Your task to perform on an android device: Search for the best vacuum on Walmart Image 0: 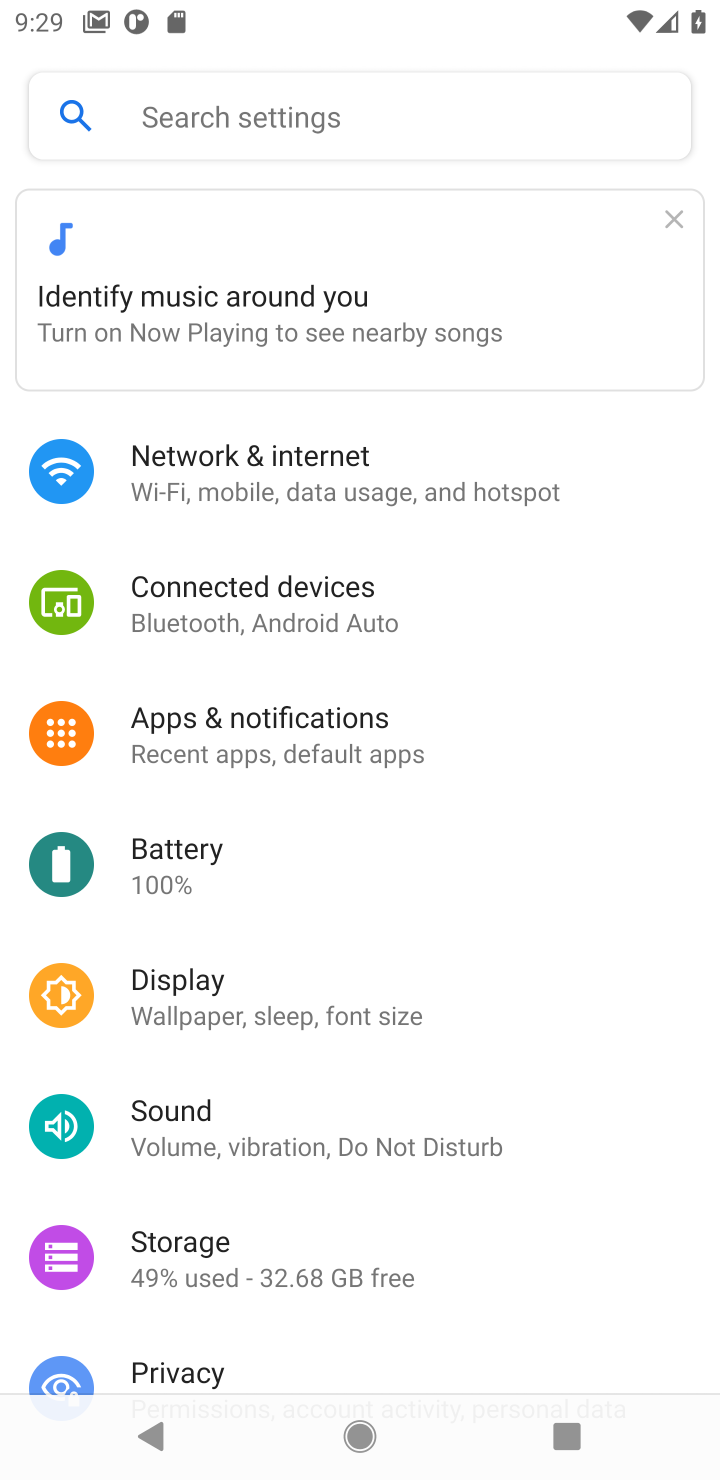
Step 0: press home button
Your task to perform on an android device: Search for the best vacuum on Walmart Image 1: 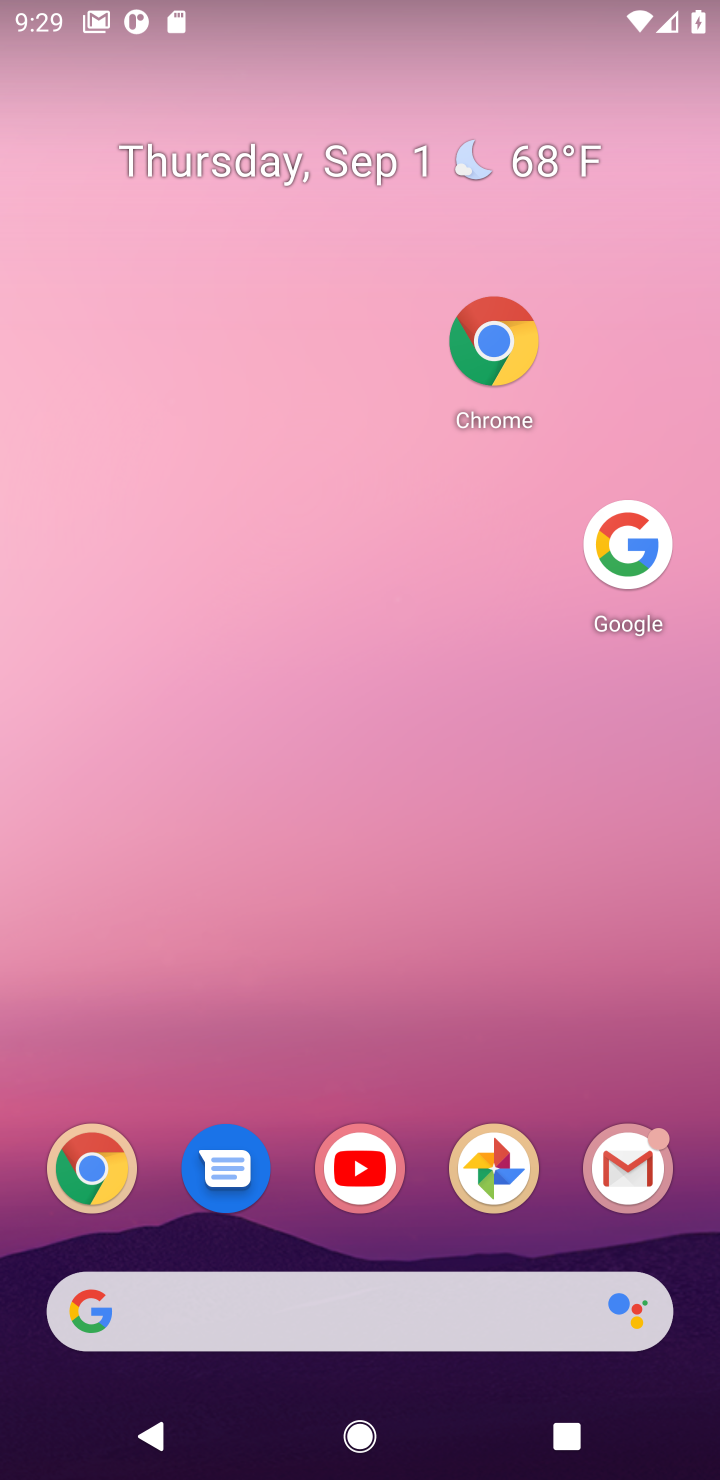
Step 1: click (624, 531)
Your task to perform on an android device: Search for the best vacuum on Walmart Image 2: 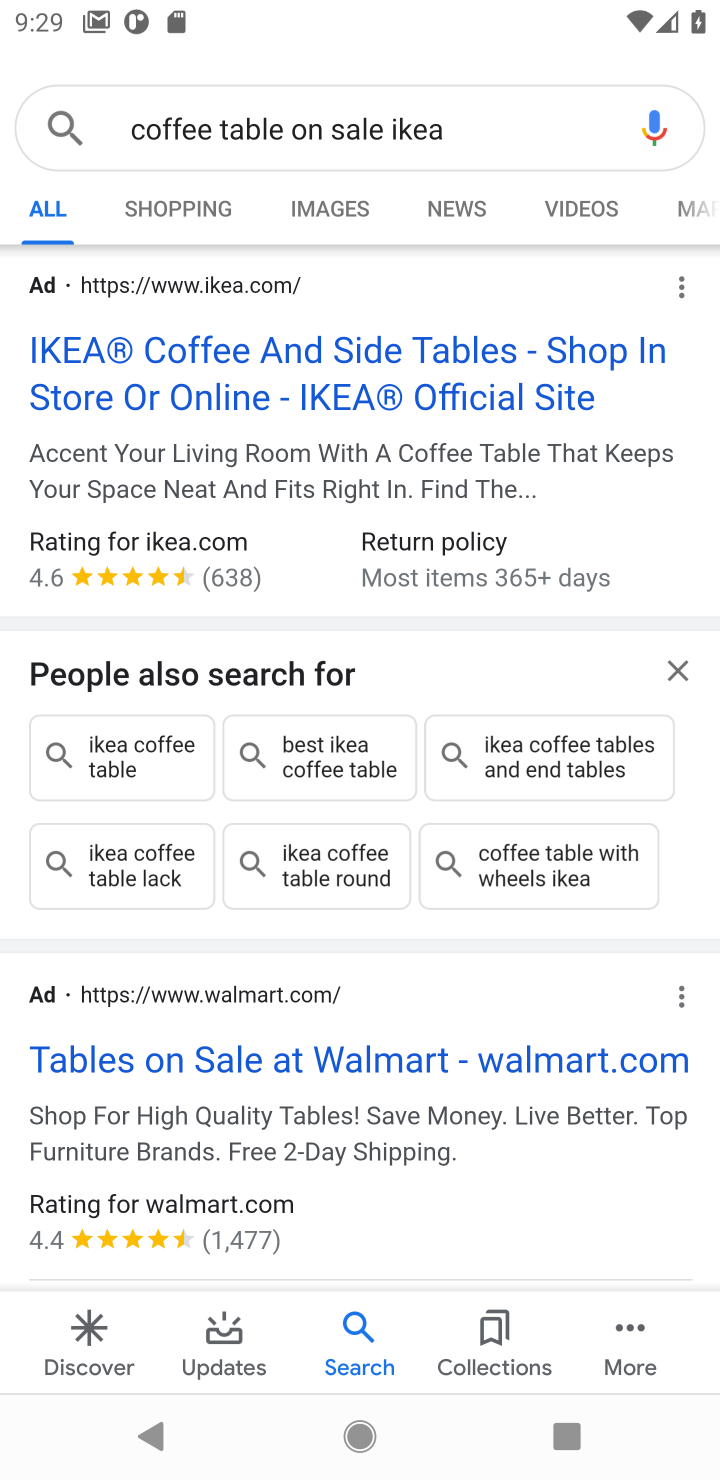
Step 2: click (497, 122)
Your task to perform on an android device: Search for the best vacuum on Walmart Image 3: 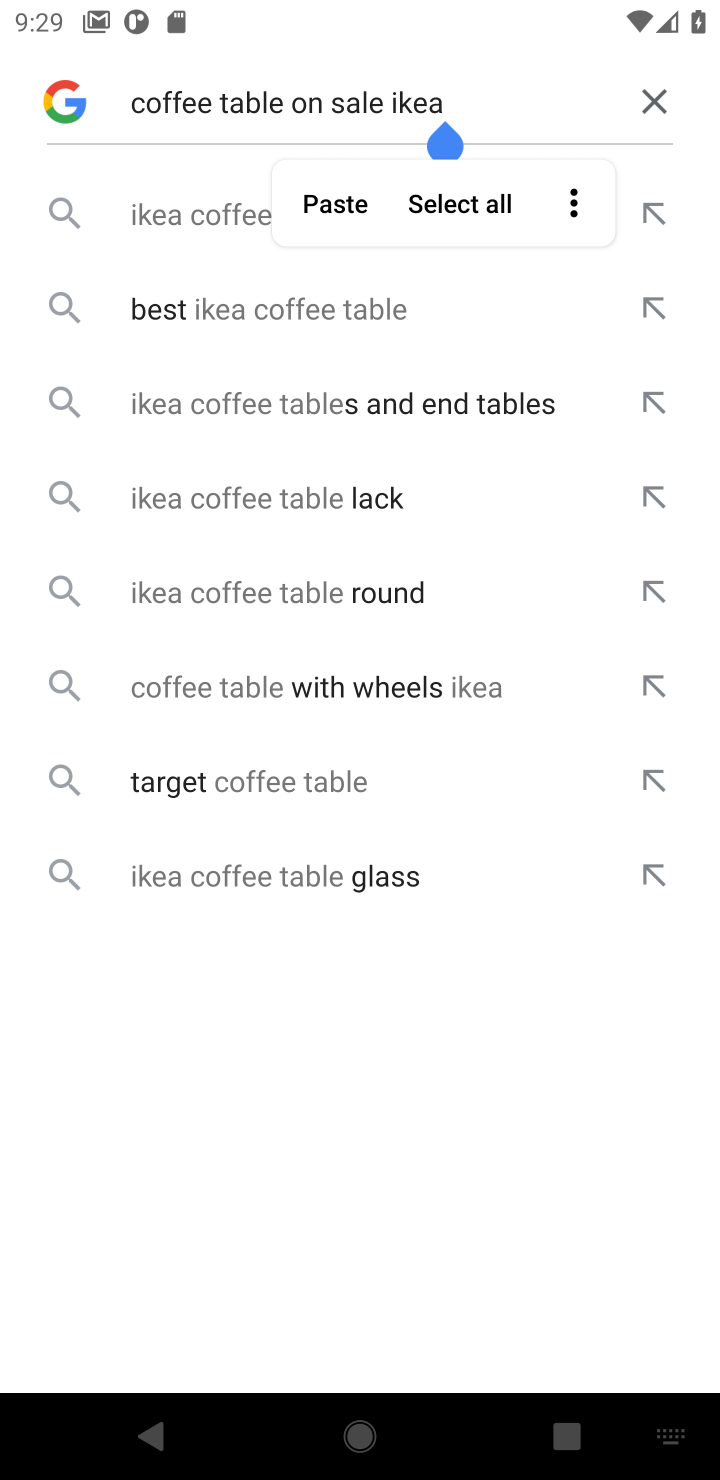
Step 3: click (640, 102)
Your task to perform on an android device: Search for the best vacuum on Walmart Image 4: 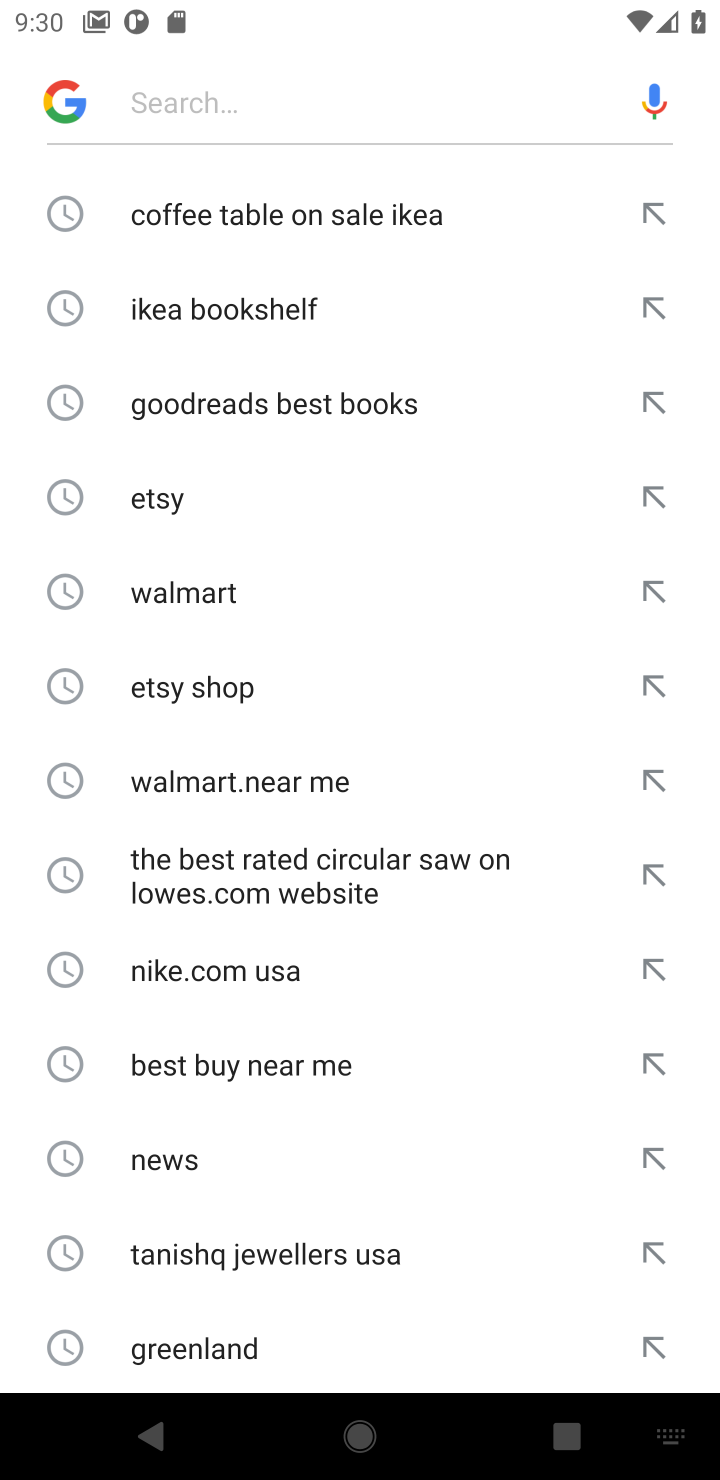
Step 4: click (390, 97)
Your task to perform on an android device: Search for the best vacuum on Walmart Image 5: 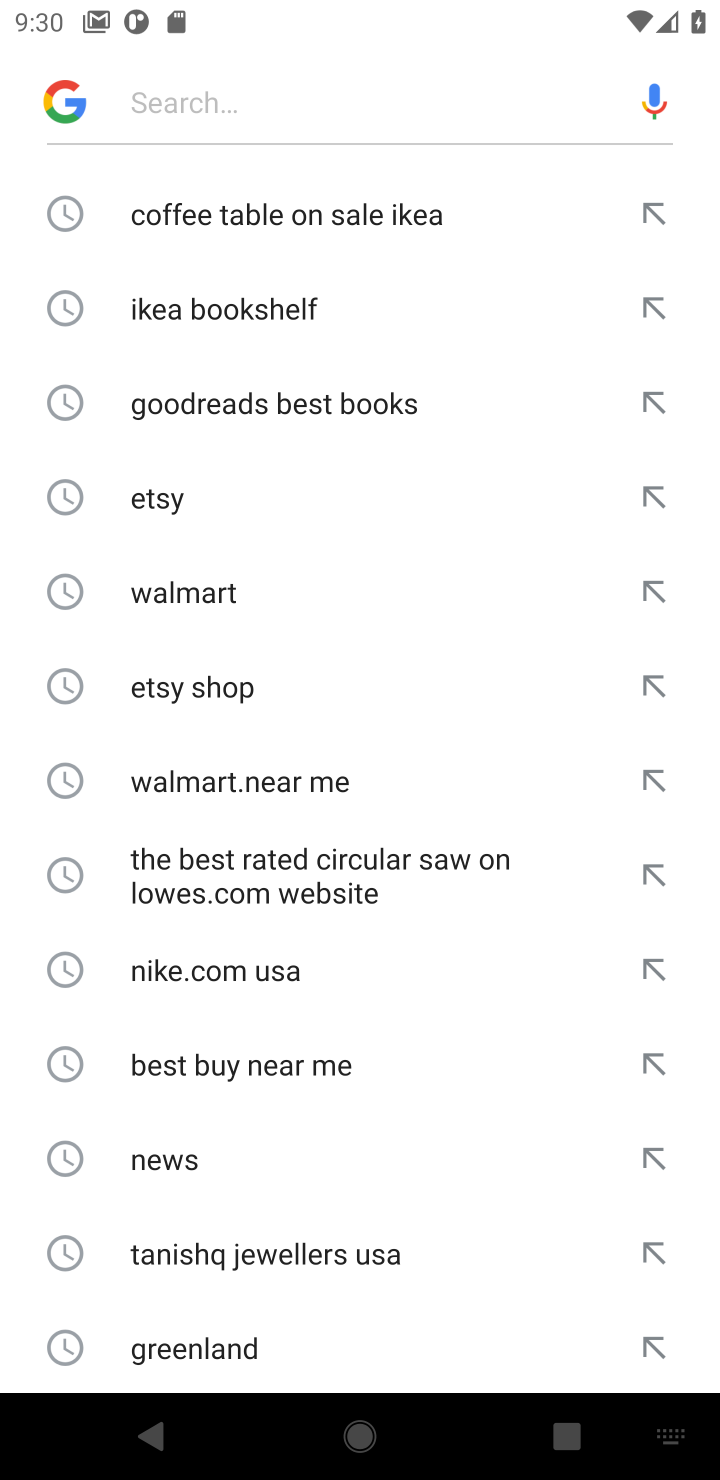
Step 5: type "Walmart "
Your task to perform on an android device: Search for the best vacuum on Walmart Image 6: 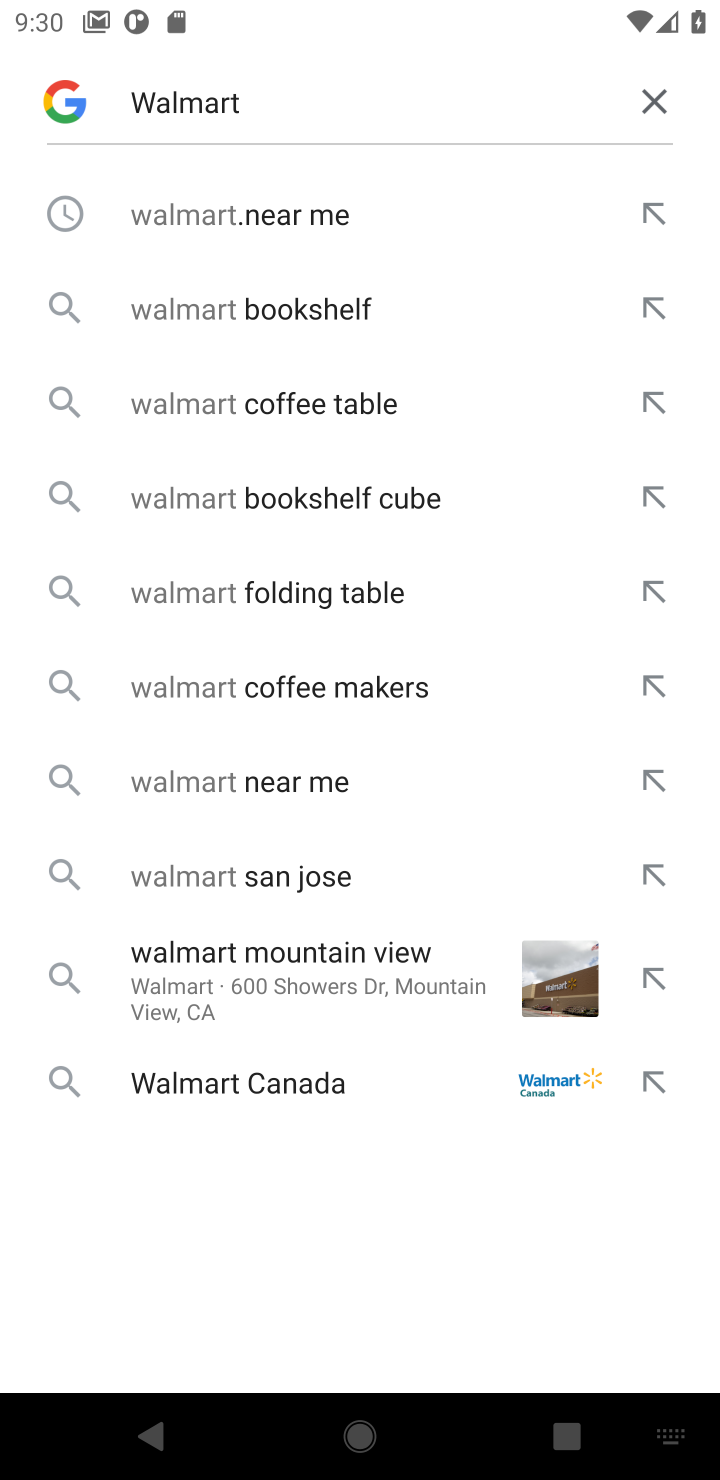
Step 6: click (224, 214)
Your task to perform on an android device: Search for the best vacuum on Walmart Image 7: 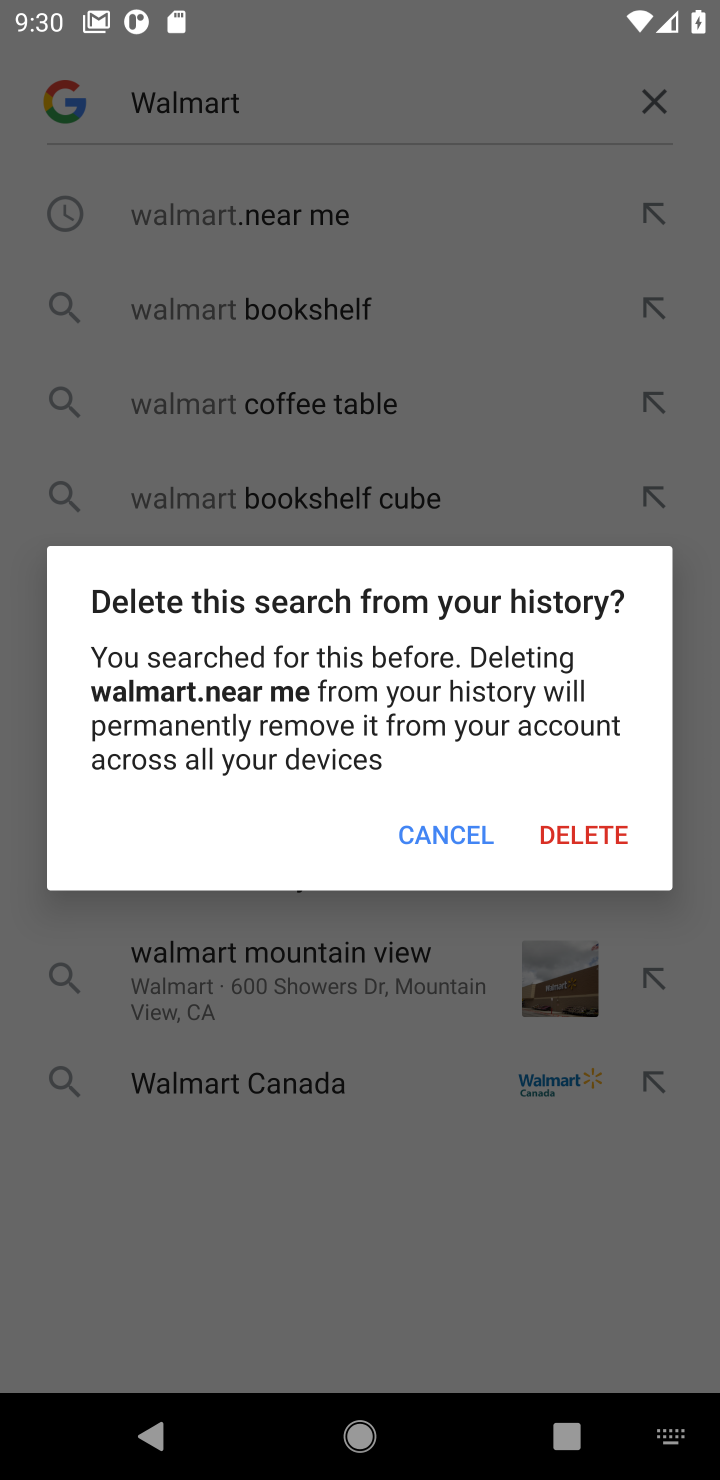
Step 7: click (448, 813)
Your task to perform on an android device: Search for the best vacuum on Walmart Image 8: 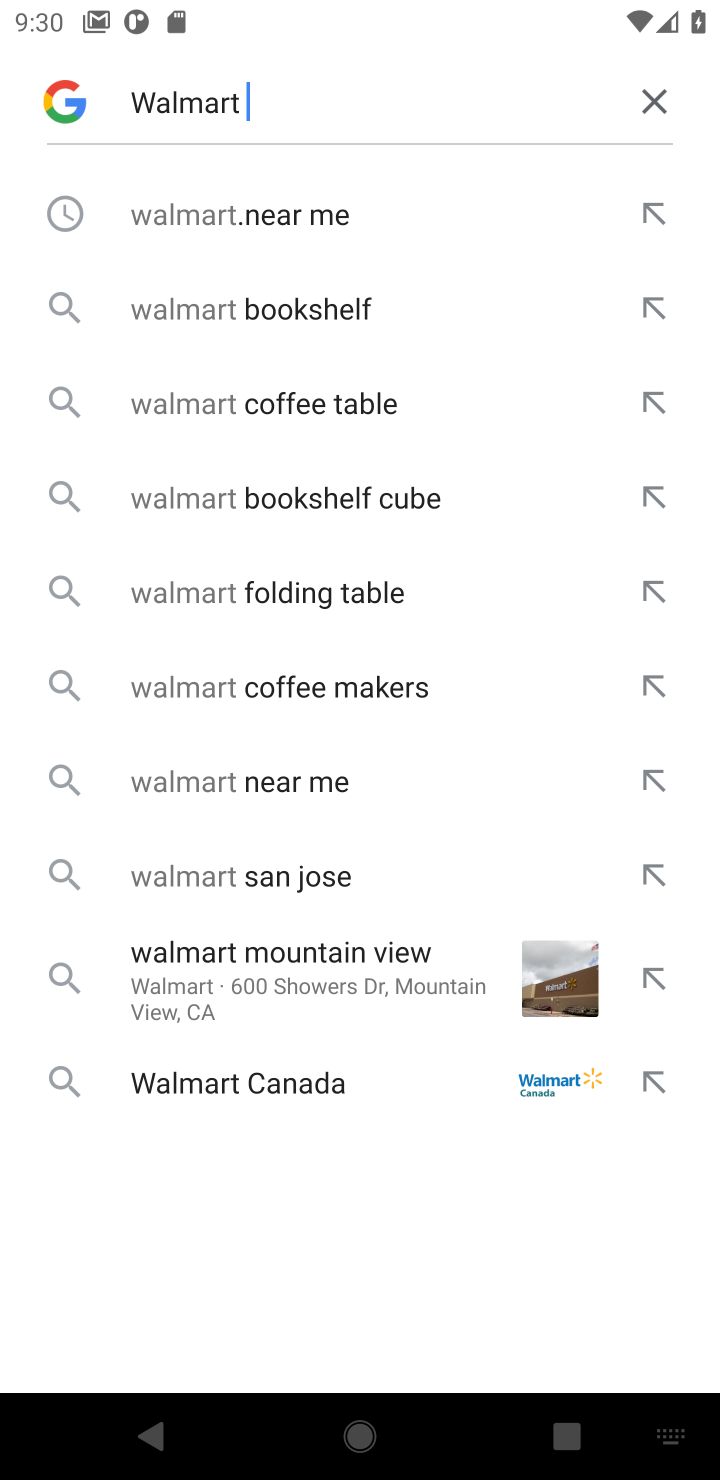
Step 8: click (299, 782)
Your task to perform on an android device: Search for the best vacuum on Walmart Image 9: 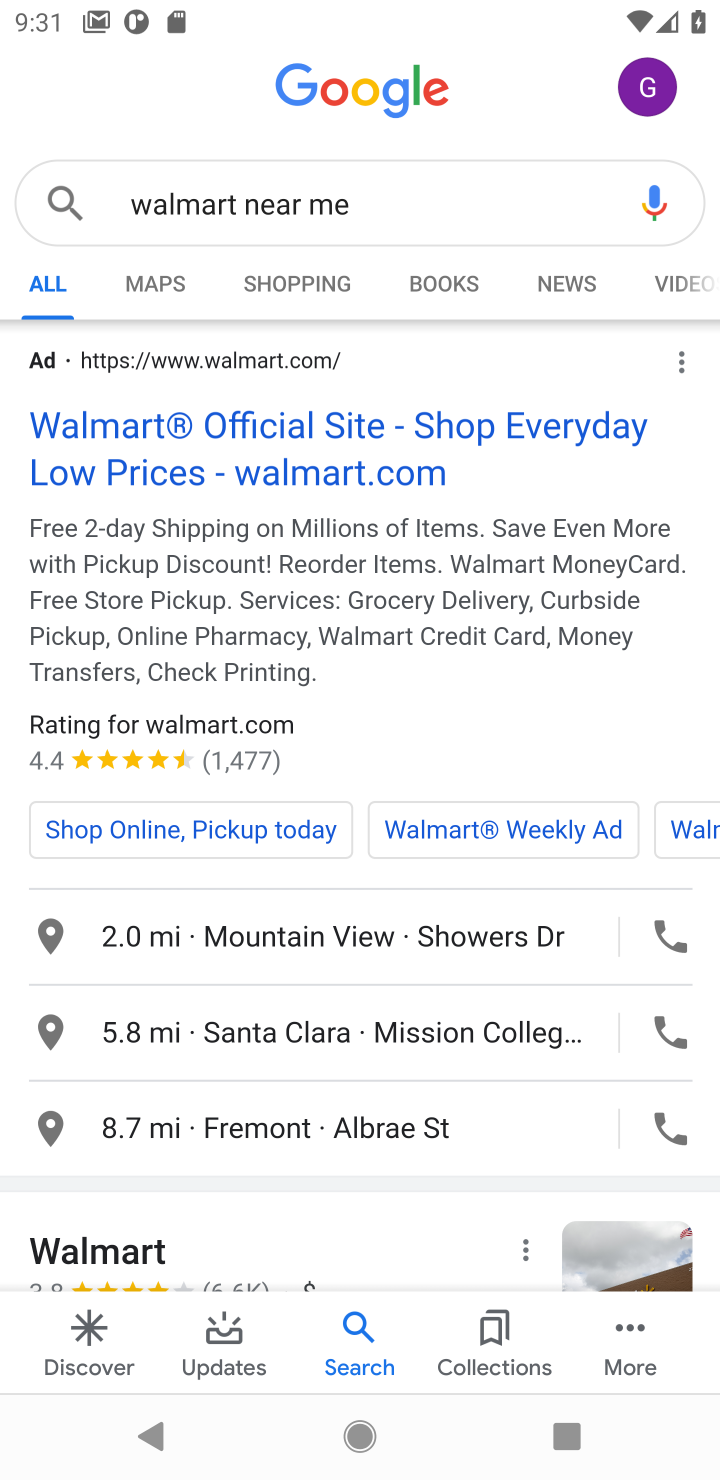
Step 9: click (328, 465)
Your task to perform on an android device: Search for the best vacuum on Walmart Image 10: 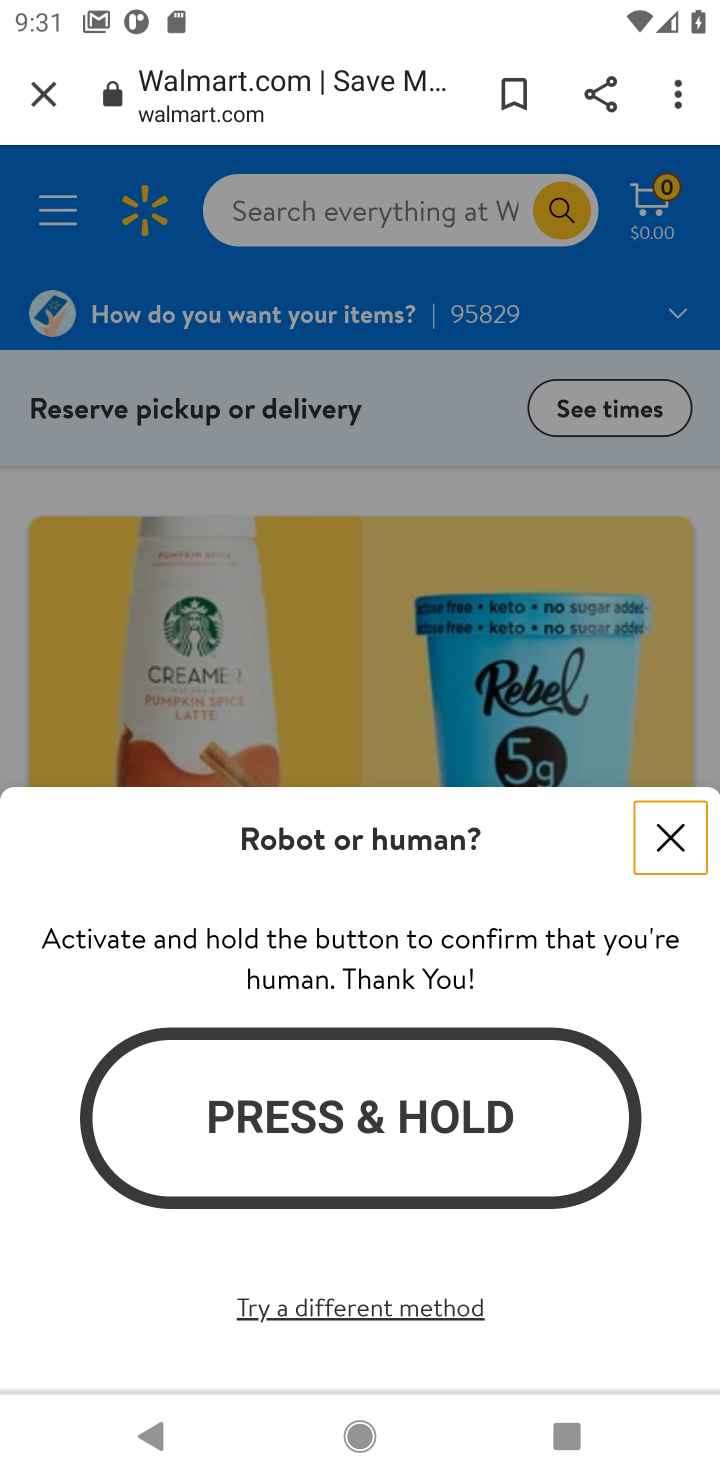
Step 10: click (671, 850)
Your task to perform on an android device: Search for the best vacuum on Walmart Image 11: 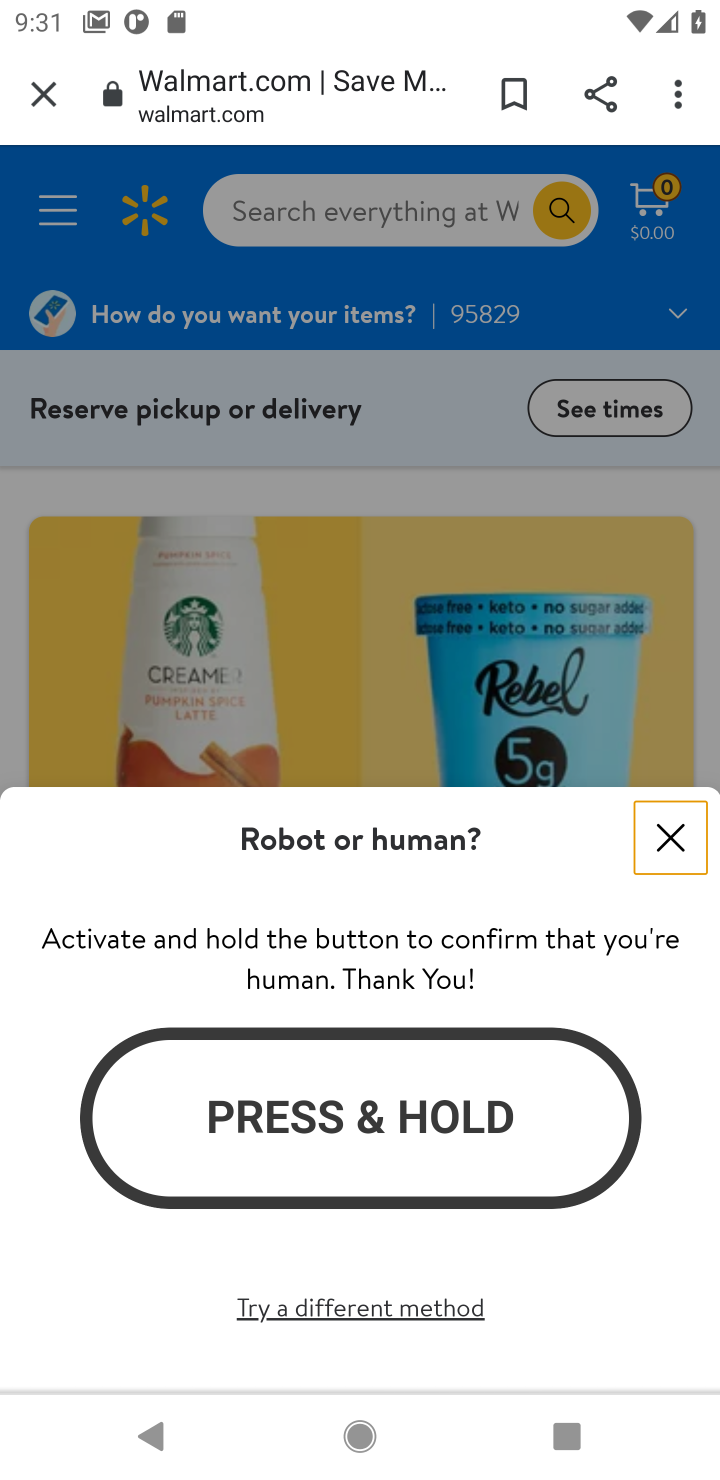
Step 11: click (667, 842)
Your task to perform on an android device: Search for the best vacuum on Walmart Image 12: 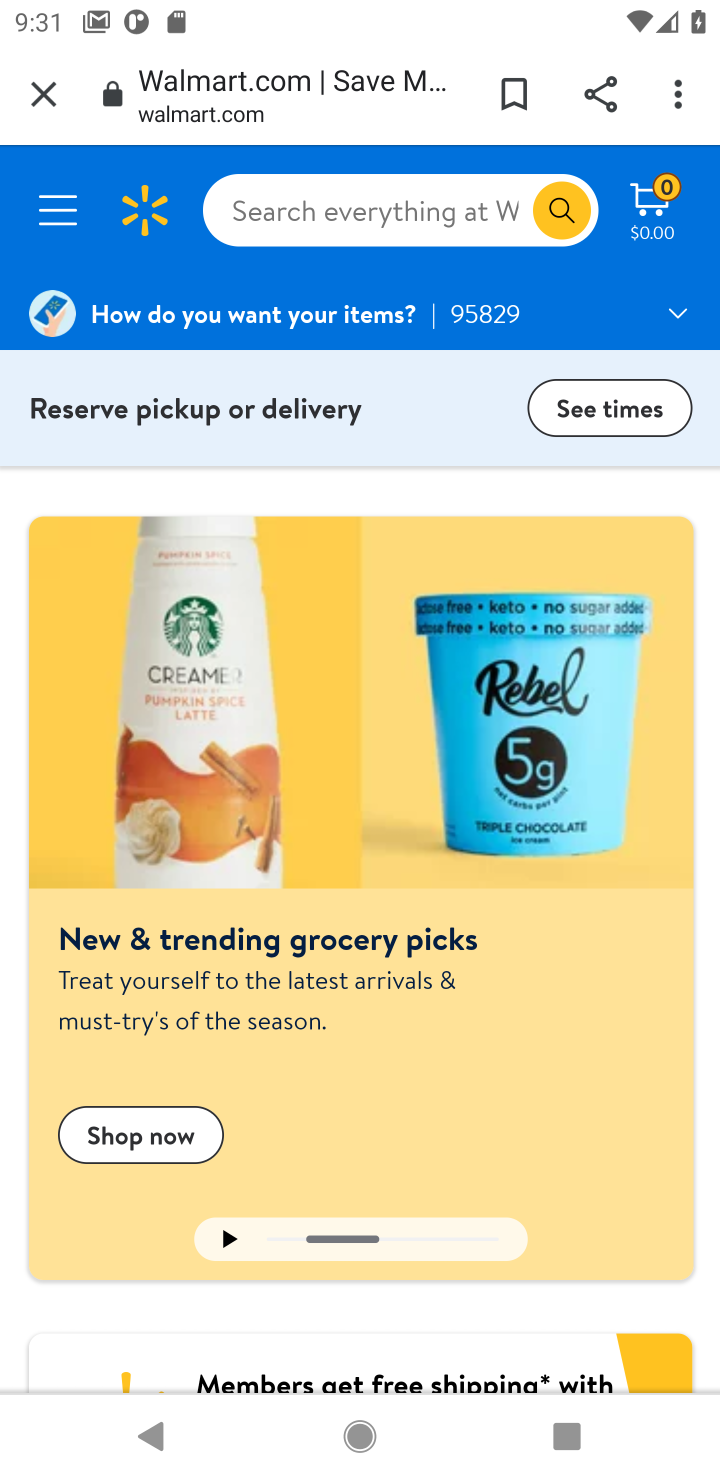
Step 12: click (370, 181)
Your task to perform on an android device: Search for the best vacuum on Walmart Image 13: 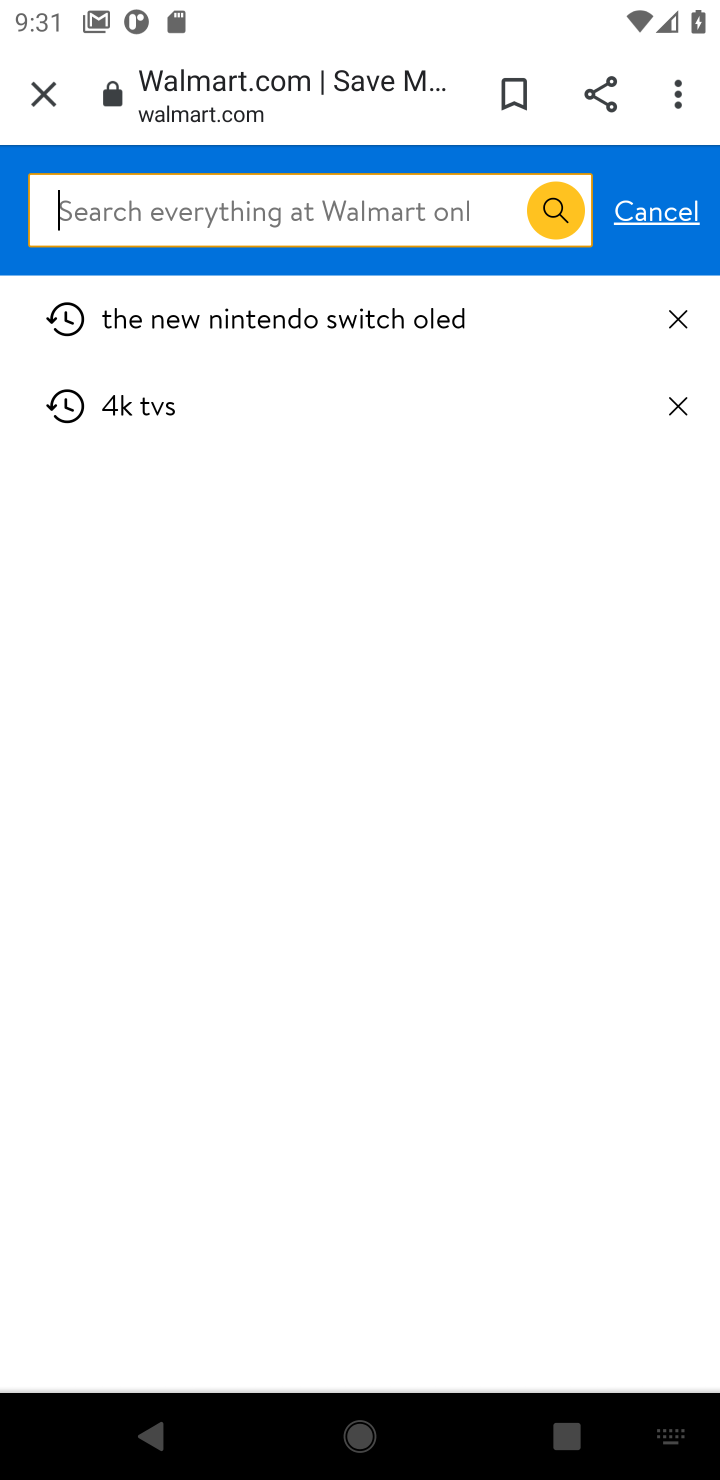
Step 13: click (324, 207)
Your task to perform on an android device: Search for the best vacuum on Walmart Image 14: 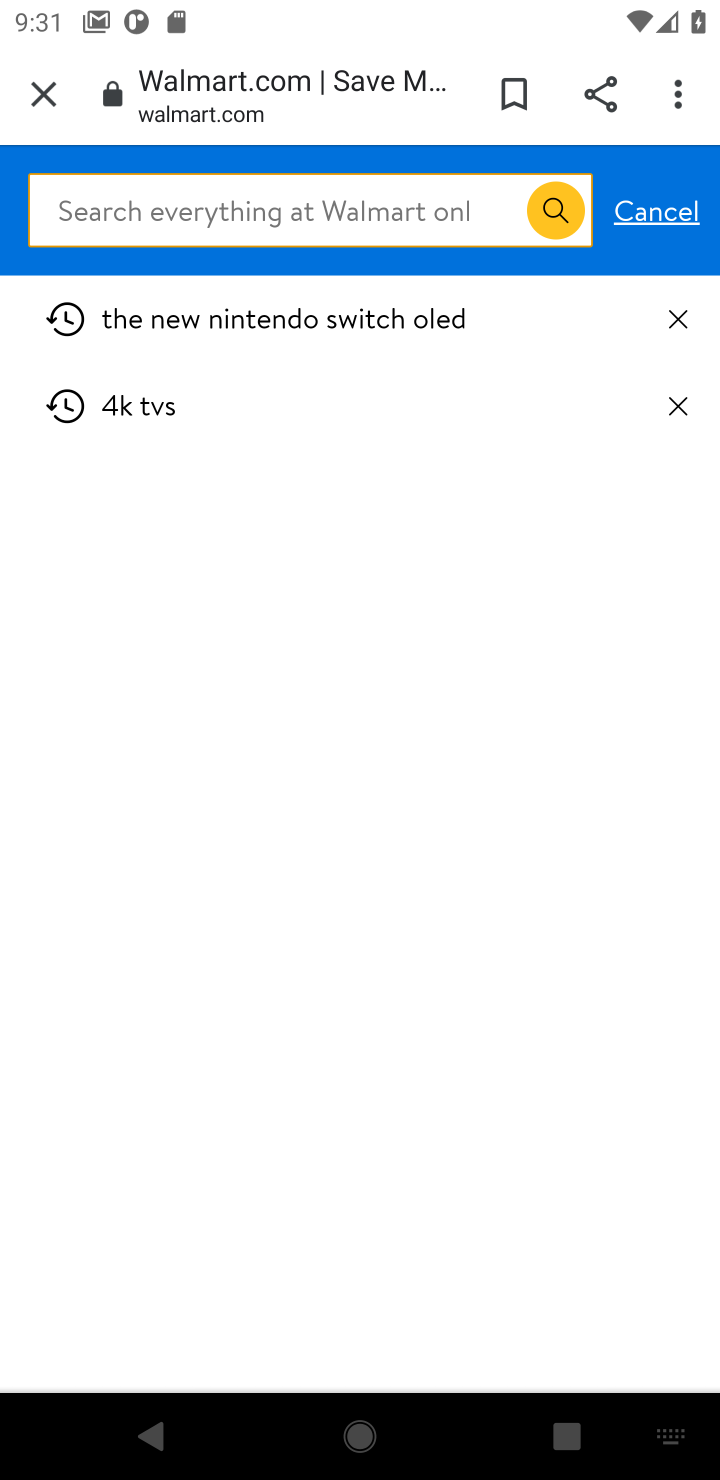
Step 14: type "best vacuum "
Your task to perform on an android device: Search for the best vacuum on Walmart Image 15: 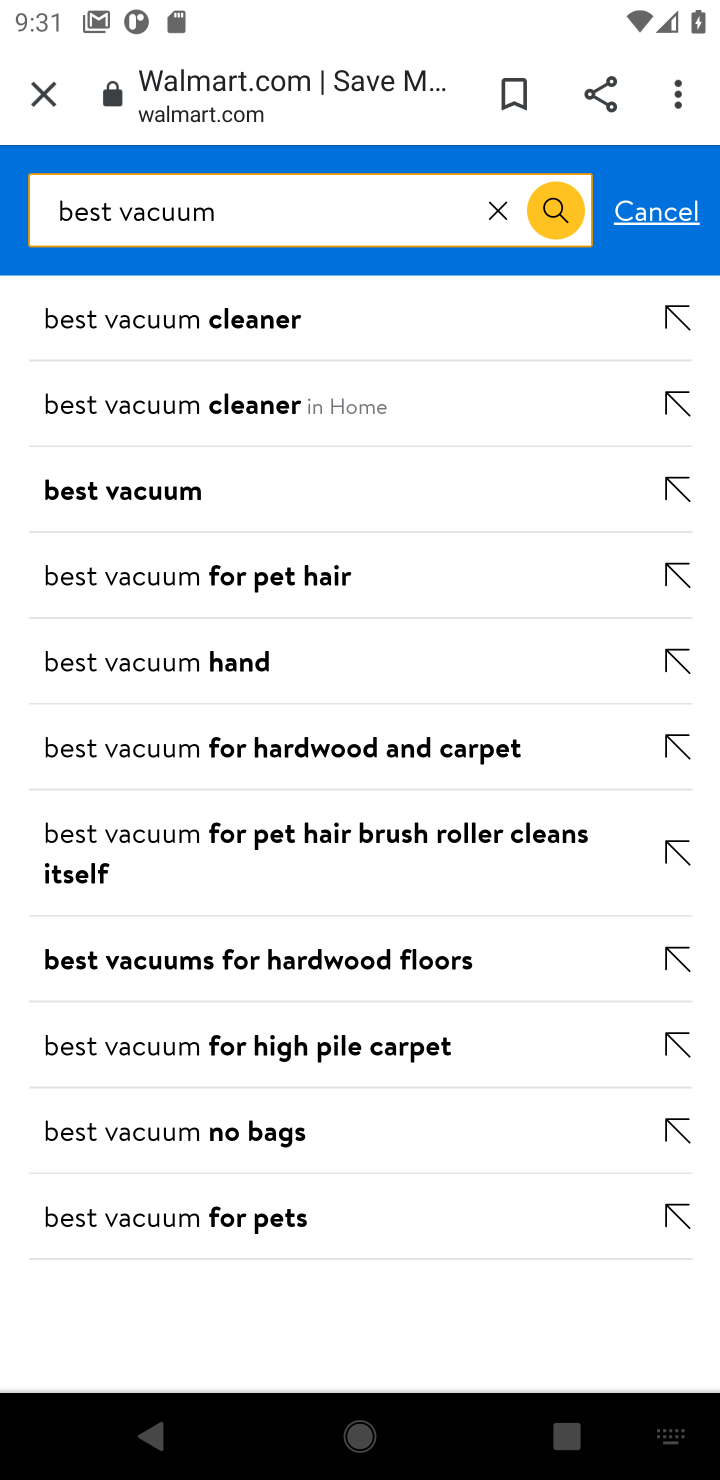
Step 15: click (180, 490)
Your task to perform on an android device: Search for the best vacuum on Walmart Image 16: 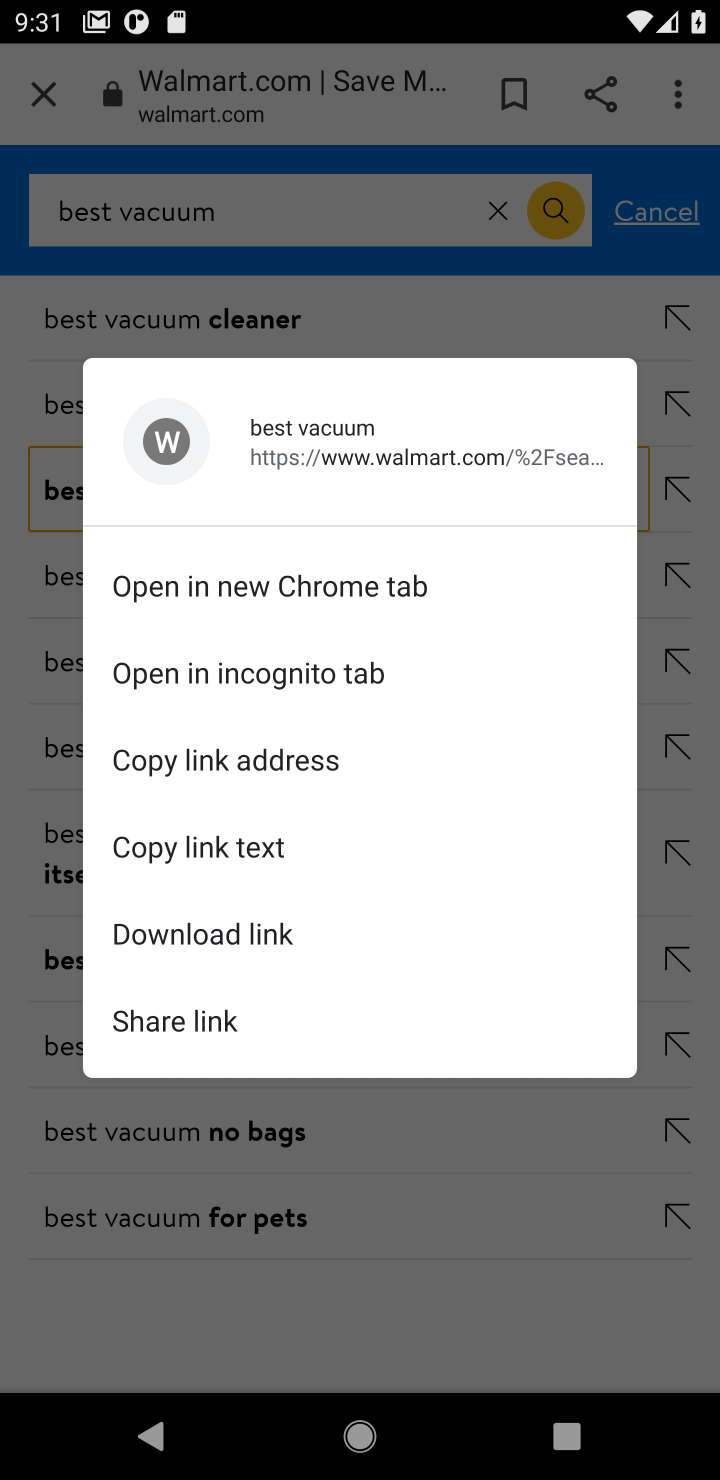
Step 16: click (386, 590)
Your task to perform on an android device: Search for the best vacuum on Walmart Image 17: 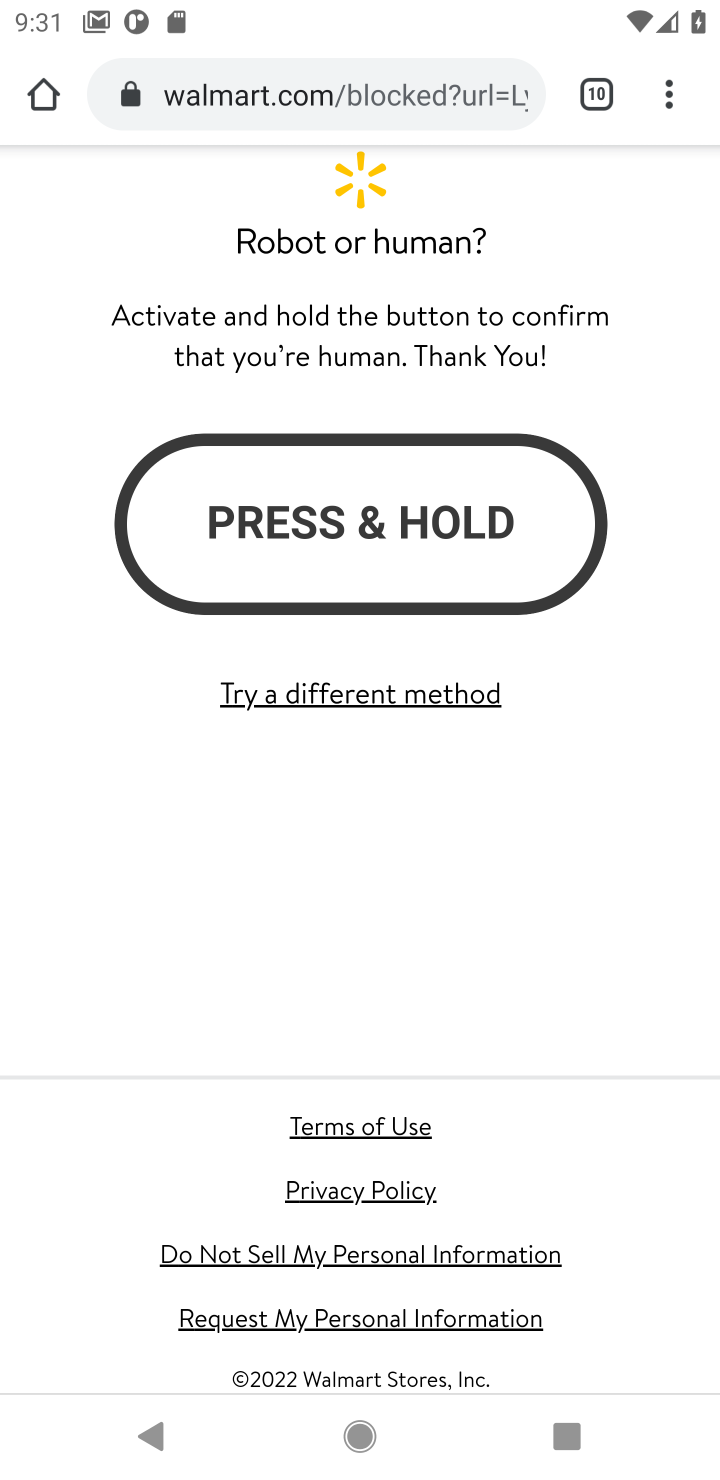
Step 17: task complete